Your task to perform on an android device: toggle show notifications on the lock screen Image 0: 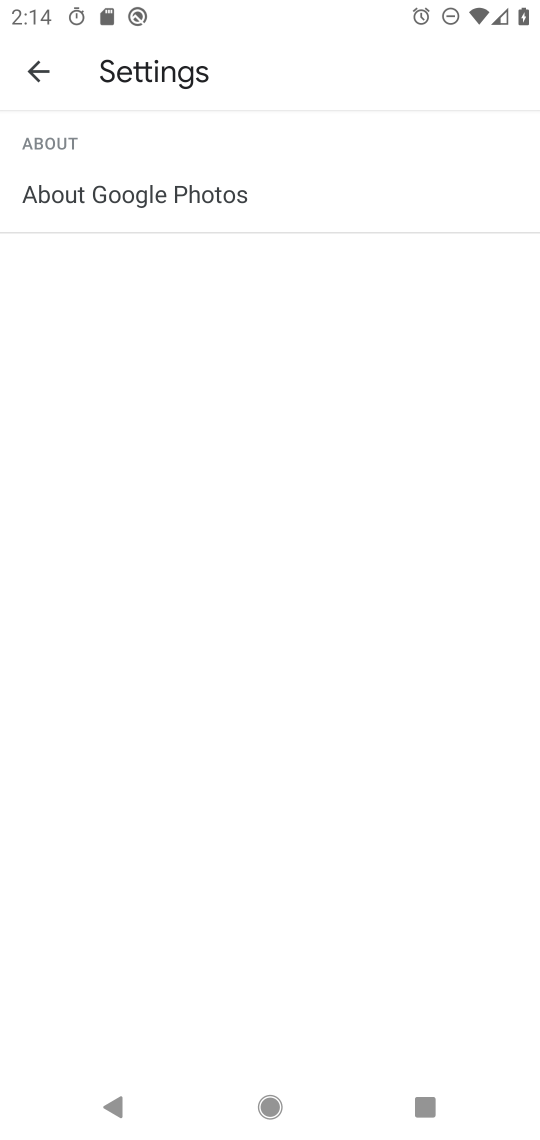
Step 0: press home button
Your task to perform on an android device: toggle show notifications on the lock screen Image 1: 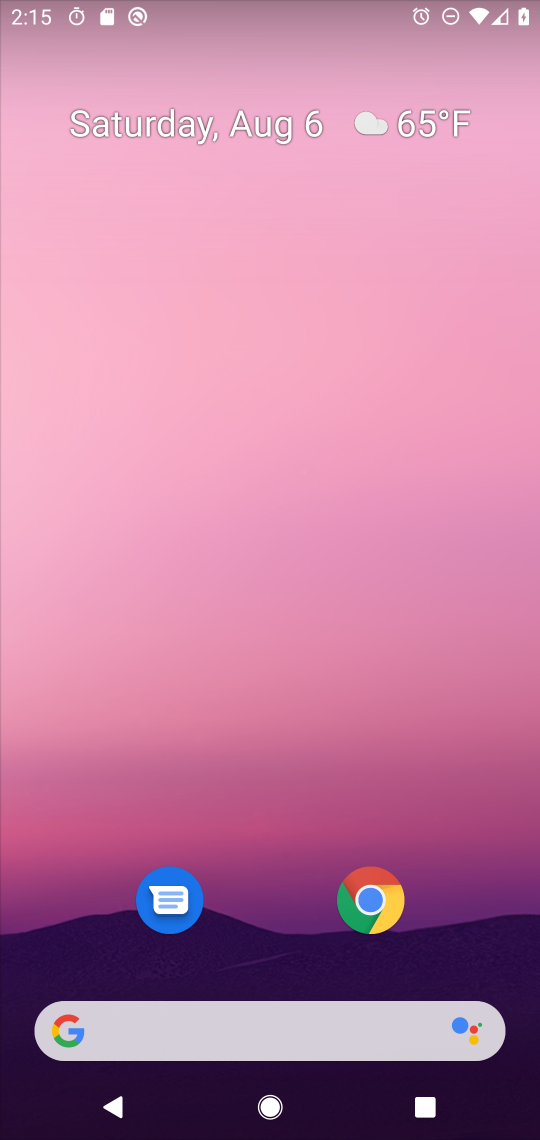
Step 1: click (375, 897)
Your task to perform on an android device: toggle show notifications on the lock screen Image 2: 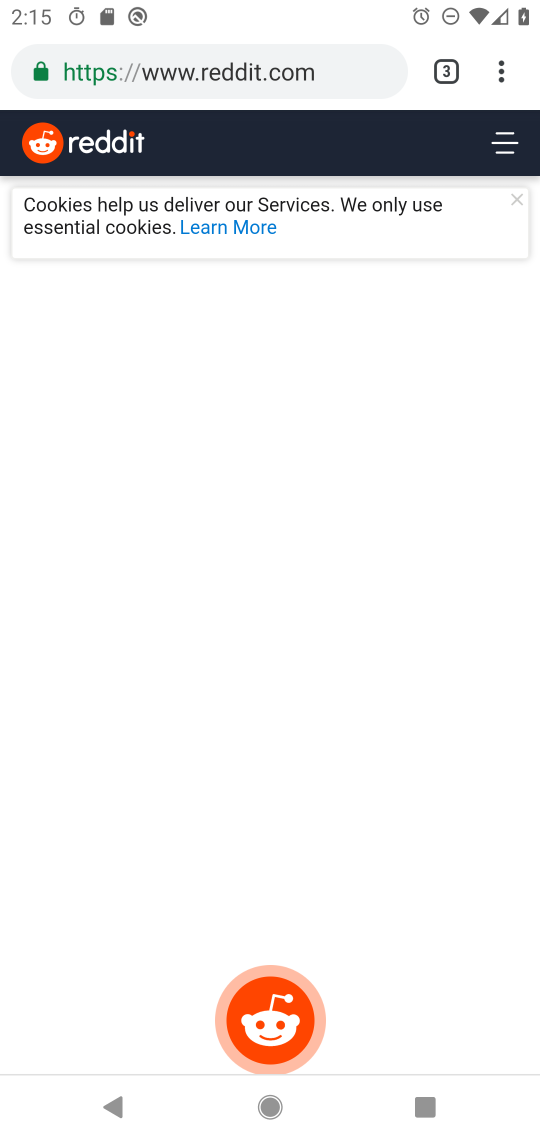
Step 2: press home button
Your task to perform on an android device: toggle show notifications on the lock screen Image 3: 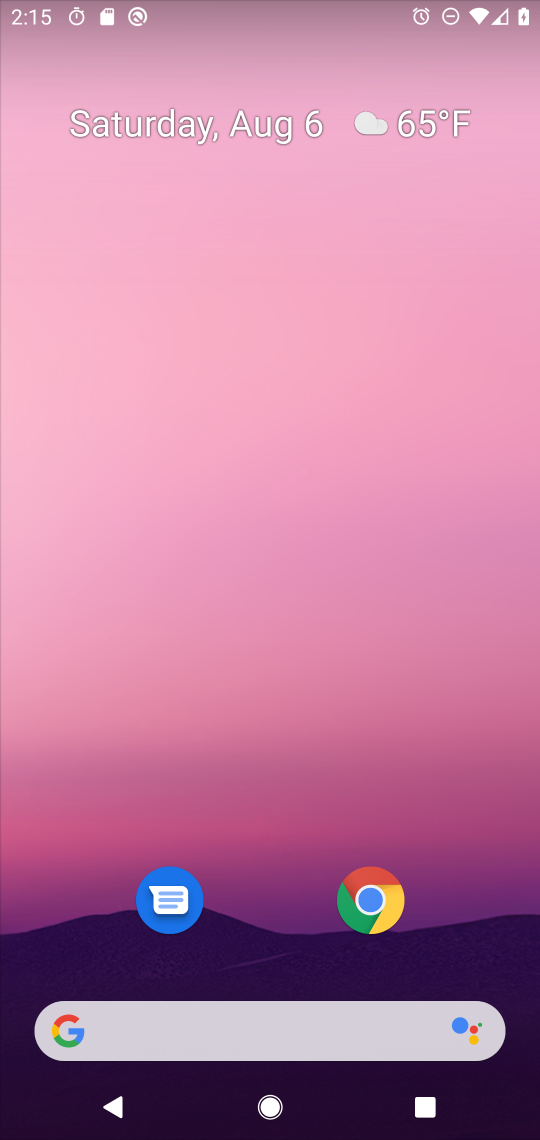
Step 3: drag from (295, 826) to (297, 108)
Your task to perform on an android device: toggle show notifications on the lock screen Image 4: 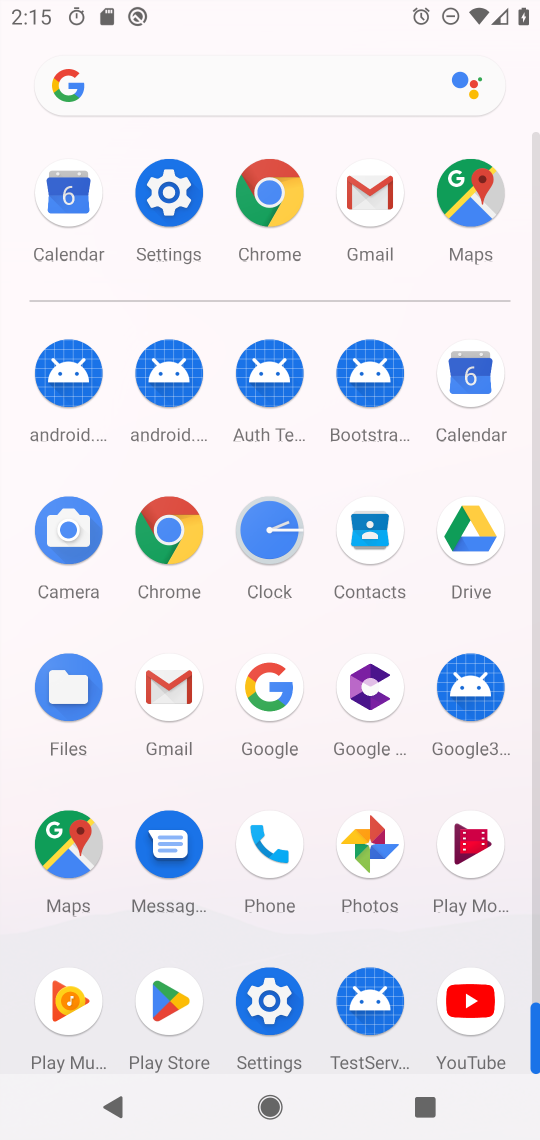
Step 4: click (157, 187)
Your task to perform on an android device: toggle show notifications on the lock screen Image 5: 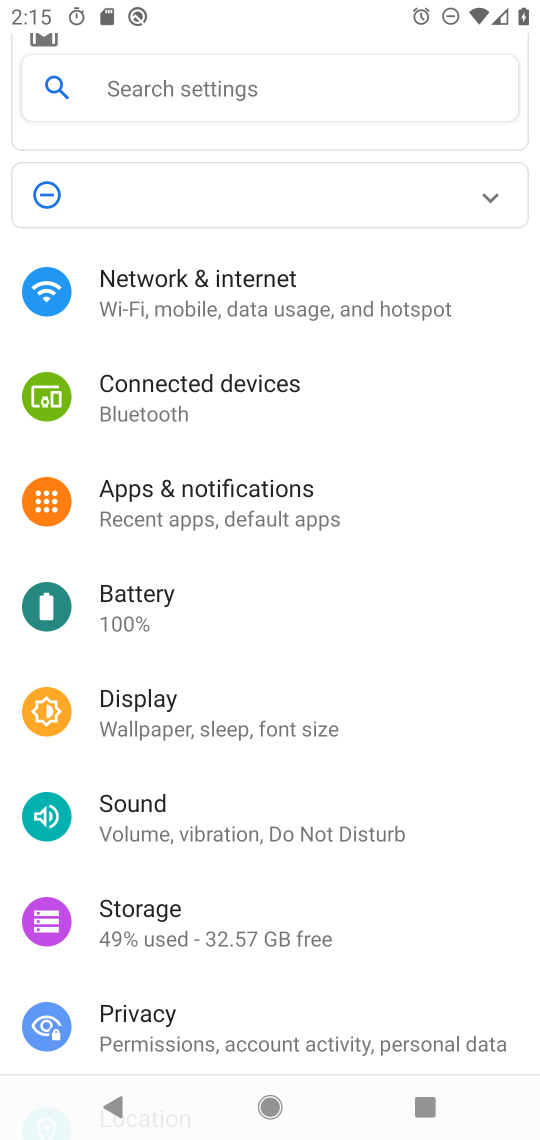
Step 5: click (150, 489)
Your task to perform on an android device: toggle show notifications on the lock screen Image 6: 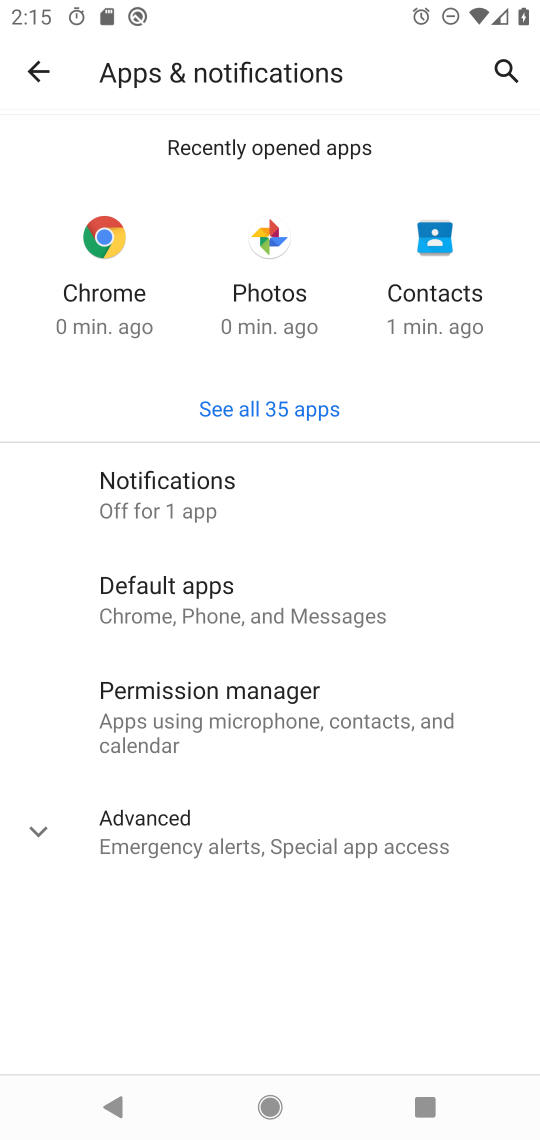
Step 6: click (150, 489)
Your task to perform on an android device: toggle show notifications on the lock screen Image 7: 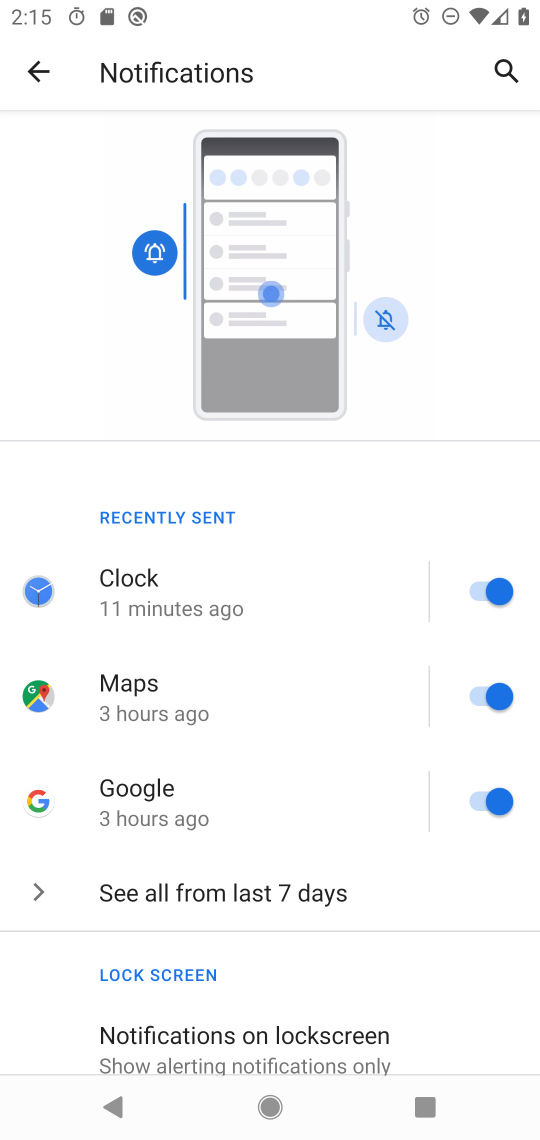
Step 7: click (228, 1037)
Your task to perform on an android device: toggle show notifications on the lock screen Image 8: 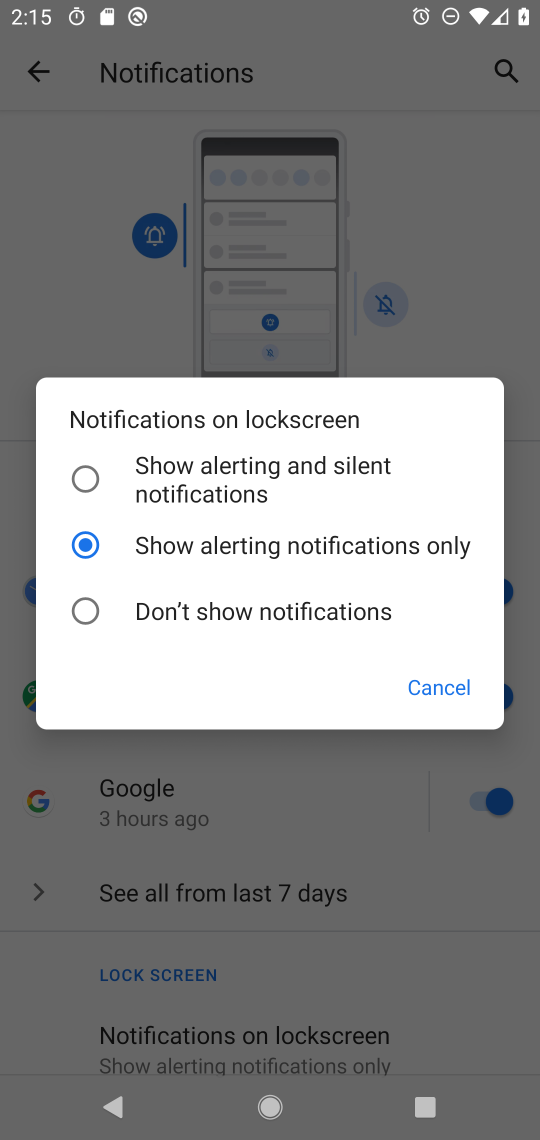
Step 8: click (86, 475)
Your task to perform on an android device: toggle show notifications on the lock screen Image 9: 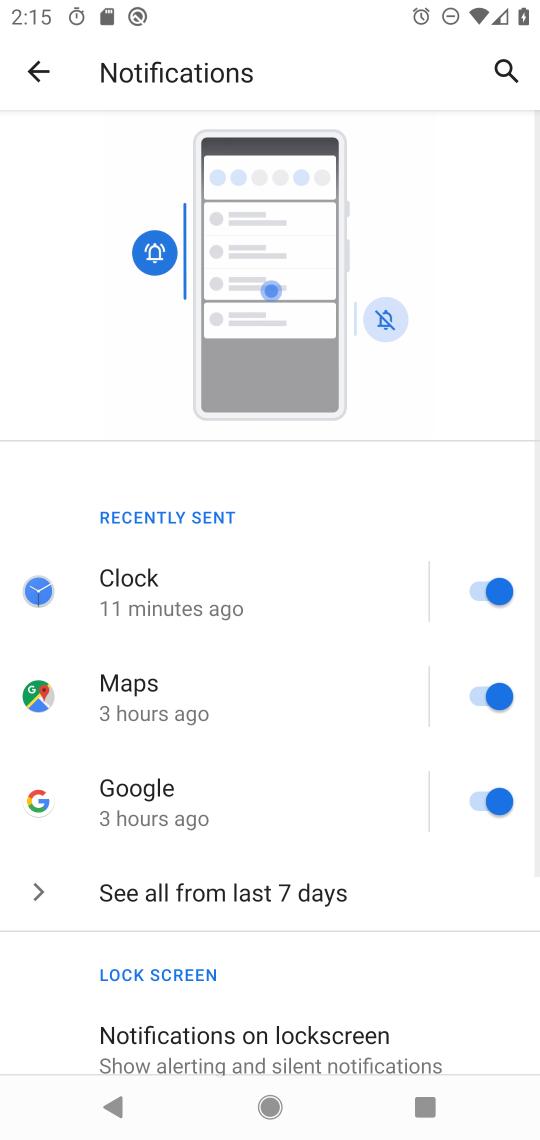
Step 9: task complete